Your task to perform on an android device: Open Google Chrome and click the shortcut for Amazon.com Image 0: 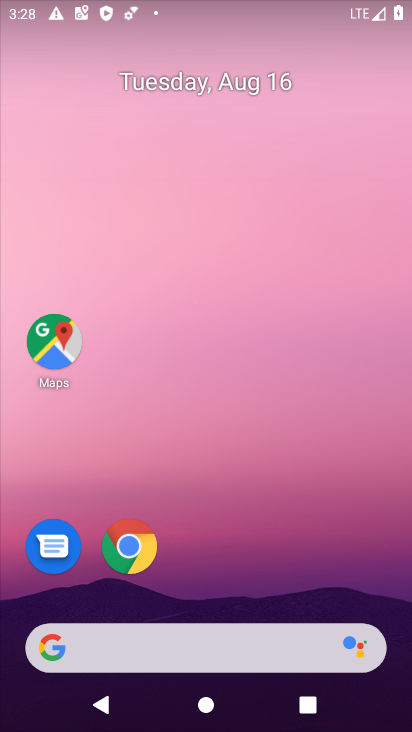
Step 0: press home button
Your task to perform on an android device: Open Google Chrome and click the shortcut for Amazon.com Image 1: 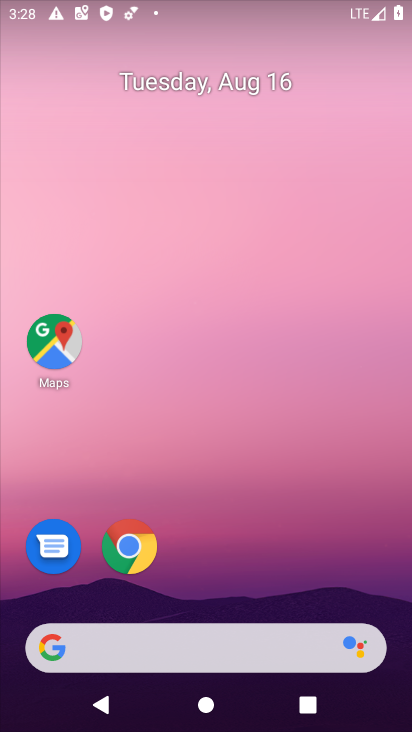
Step 1: drag from (346, 565) to (346, 43)
Your task to perform on an android device: Open Google Chrome and click the shortcut for Amazon.com Image 2: 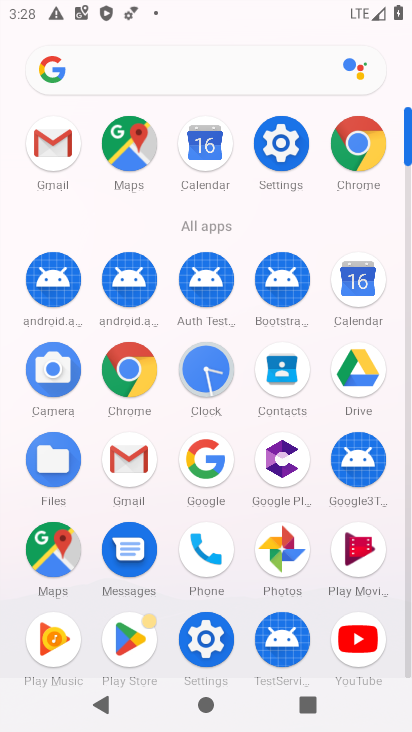
Step 2: click (131, 375)
Your task to perform on an android device: Open Google Chrome and click the shortcut for Amazon.com Image 3: 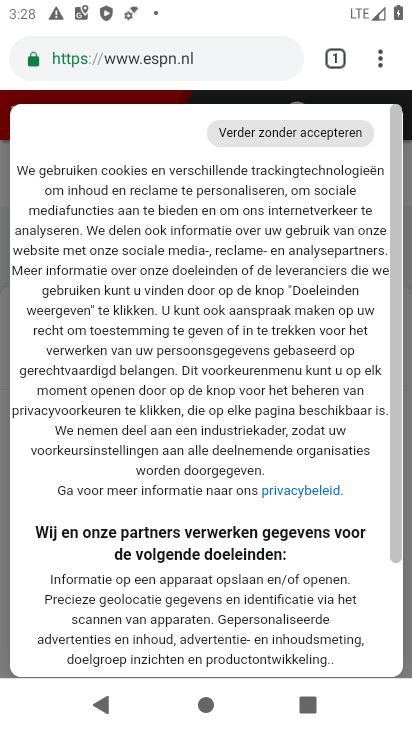
Step 3: press back button
Your task to perform on an android device: Open Google Chrome and click the shortcut for Amazon.com Image 4: 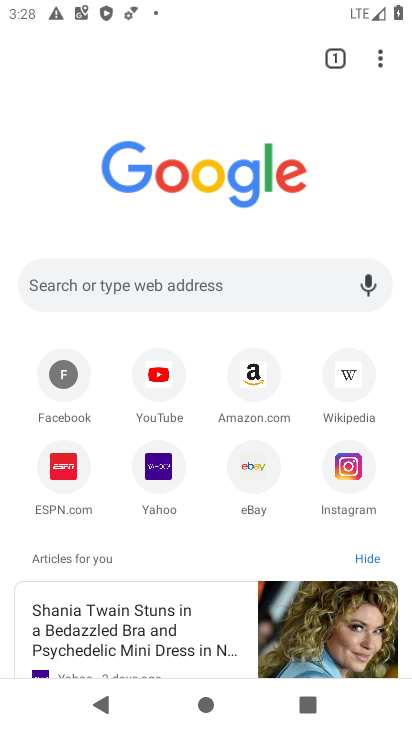
Step 4: click (252, 375)
Your task to perform on an android device: Open Google Chrome and click the shortcut for Amazon.com Image 5: 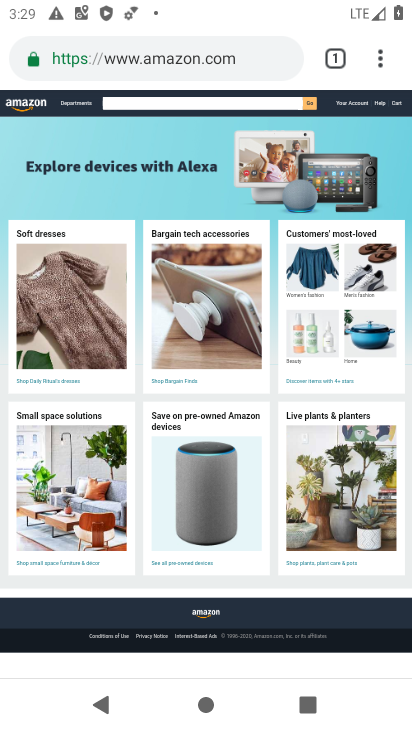
Step 5: task complete